Your task to perform on an android device: star an email in the gmail app Image 0: 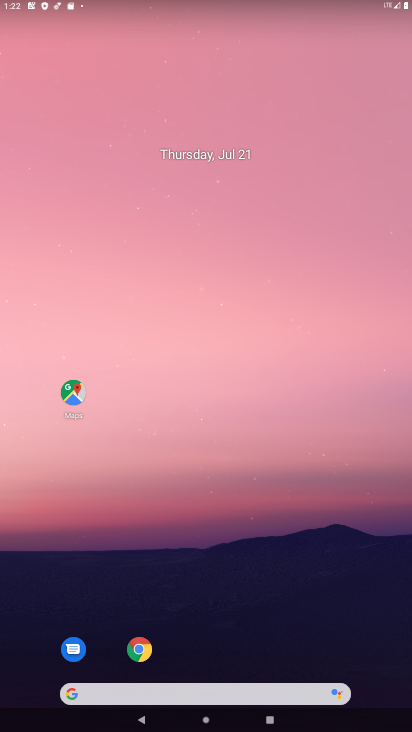
Step 0: drag from (235, 696) to (202, 66)
Your task to perform on an android device: star an email in the gmail app Image 1: 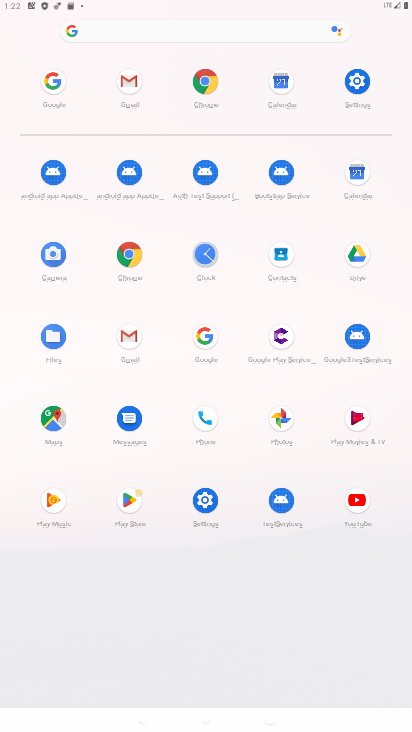
Step 1: click (131, 335)
Your task to perform on an android device: star an email in the gmail app Image 2: 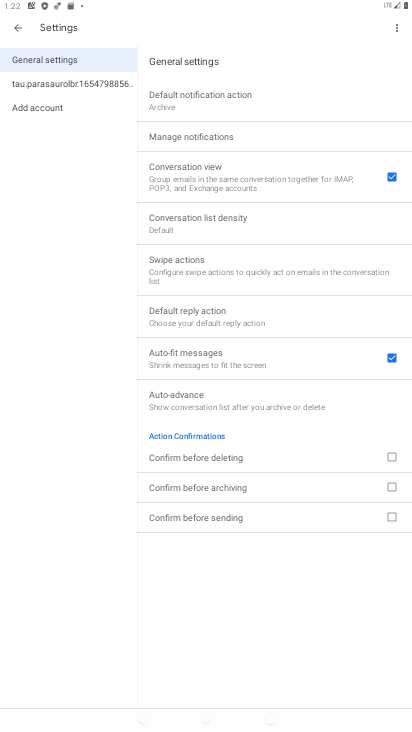
Step 2: click (16, 26)
Your task to perform on an android device: star an email in the gmail app Image 3: 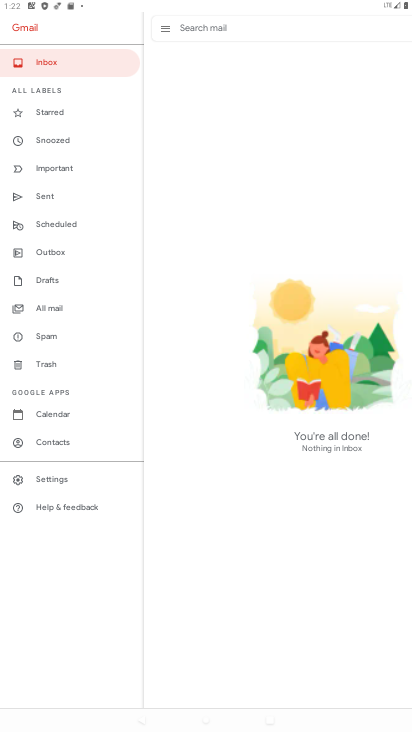
Step 3: click (53, 63)
Your task to perform on an android device: star an email in the gmail app Image 4: 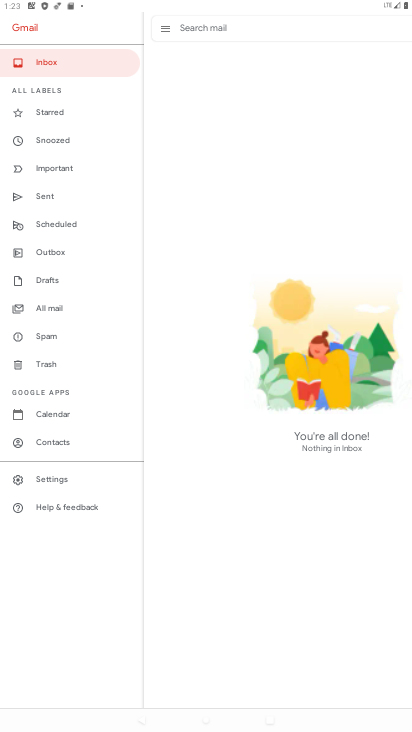
Step 4: task complete